Your task to perform on an android device: toggle notification dots Image 0: 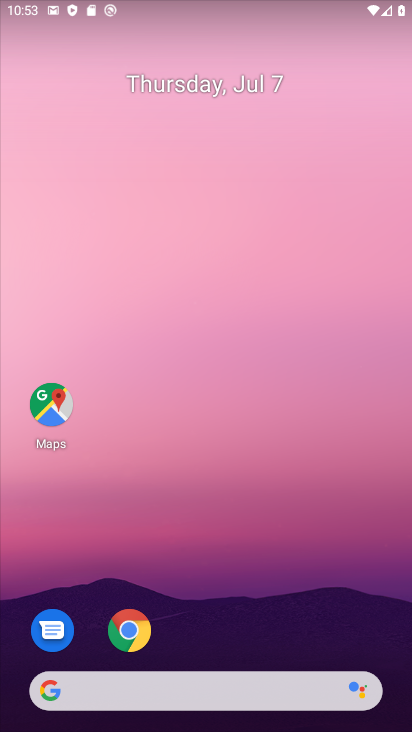
Step 0: drag from (403, 660) to (200, 9)
Your task to perform on an android device: toggle notification dots Image 1: 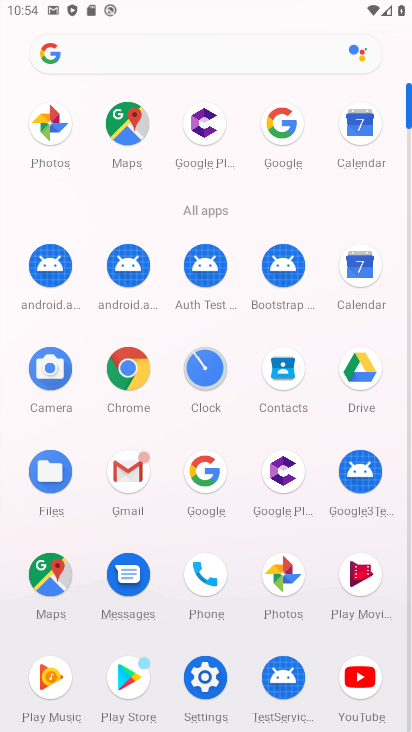
Step 1: click (216, 676)
Your task to perform on an android device: toggle notification dots Image 2: 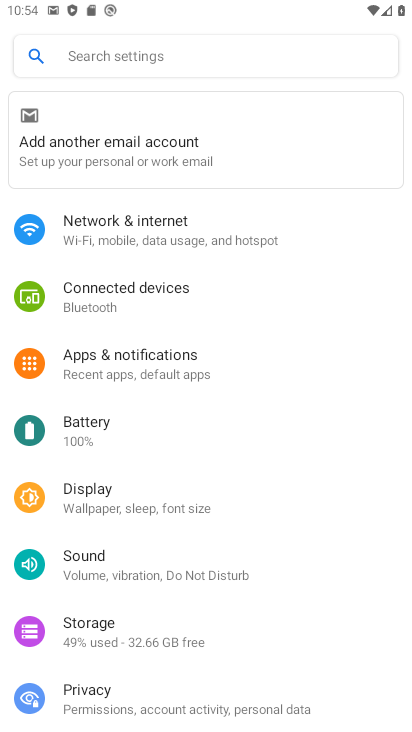
Step 2: click (126, 366)
Your task to perform on an android device: toggle notification dots Image 3: 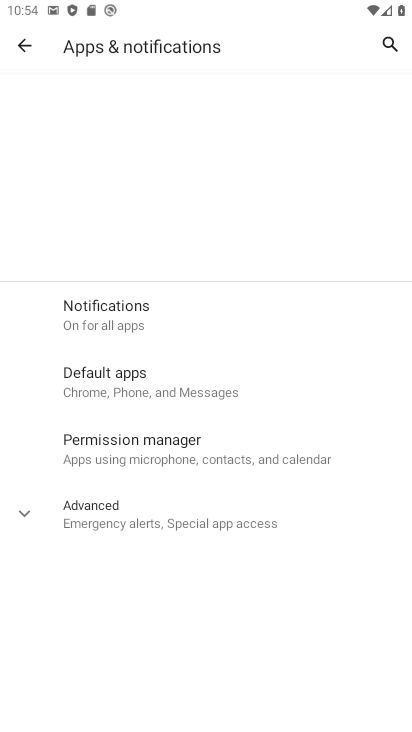
Step 3: click (153, 319)
Your task to perform on an android device: toggle notification dots Image 4: 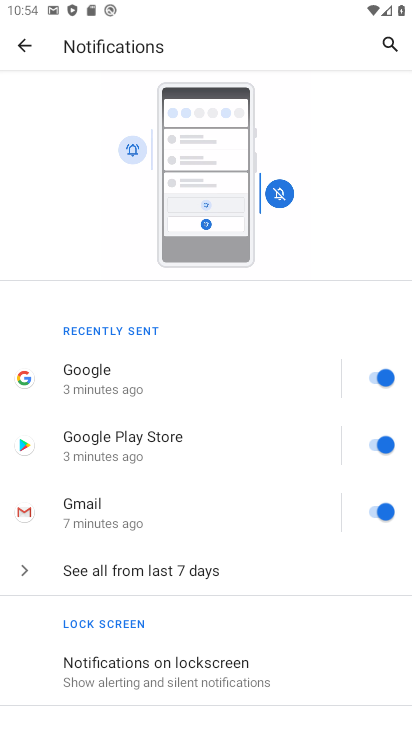
Step 4: drag from (158, 680) to (178, 245)
Your task to perform on an android device: toggle notification dots Image 5: 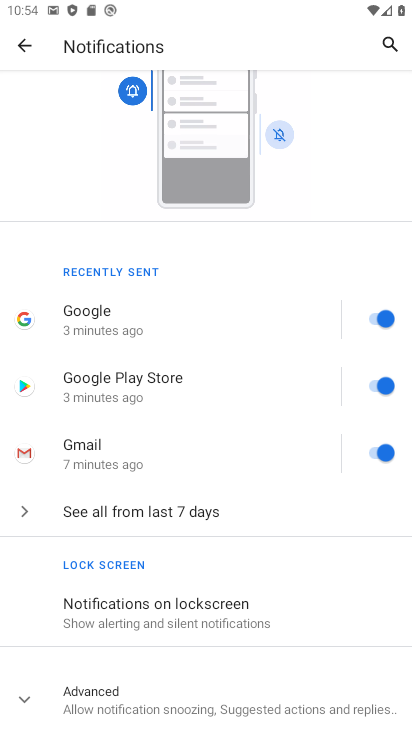
Step 5: click (112, 690)
Your task to perform on an android device: toggle notification dots Image 6: 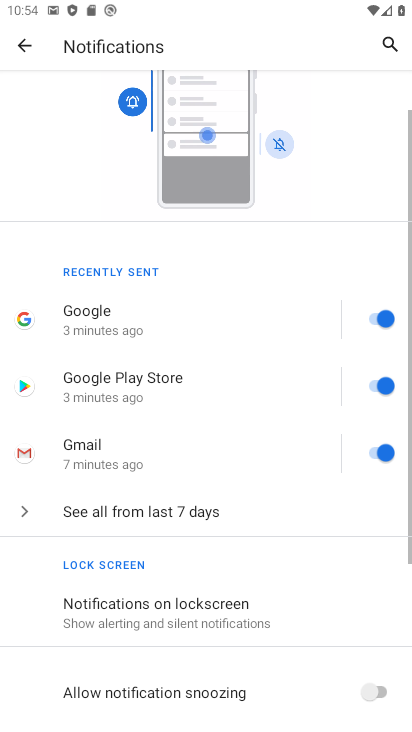
Step 6: drag from (168, 694) to (221, 282)
Your task to perform on an android device: toggle notification dots Image 7: 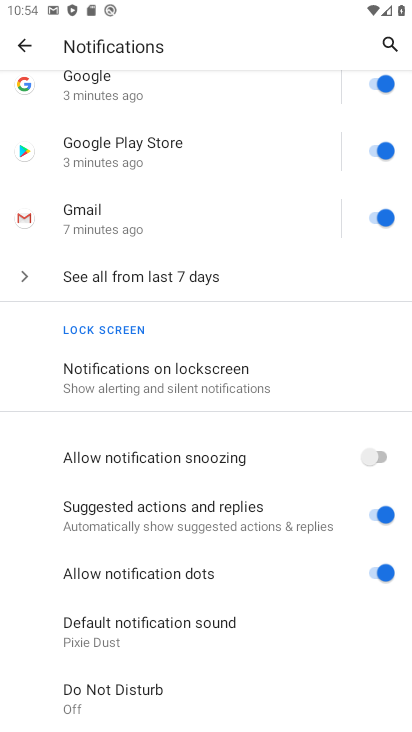
Step 7: click (309, 582)
Your task to perform on an android device: toggle notification dots Image 8: 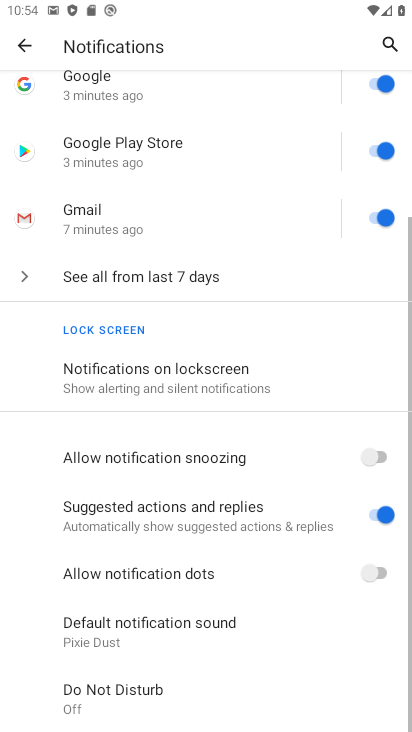
Step 8: task complete